Your task to perform on an android device: Find coffee shops on Maps Image 0: 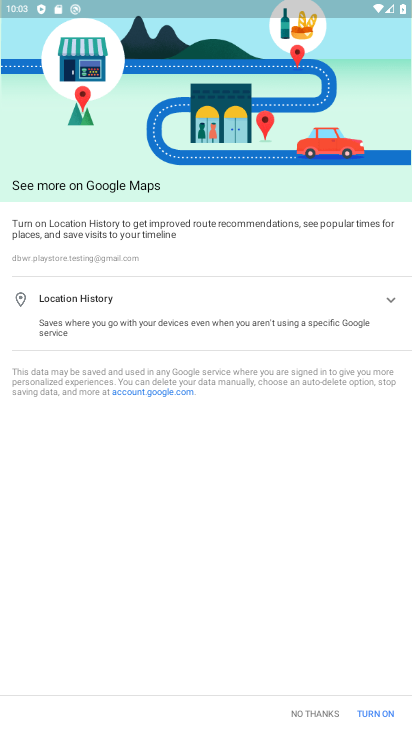
Step 0: press home button
Your task to perform on an android device: Find coffee shops on Maps Image 1: 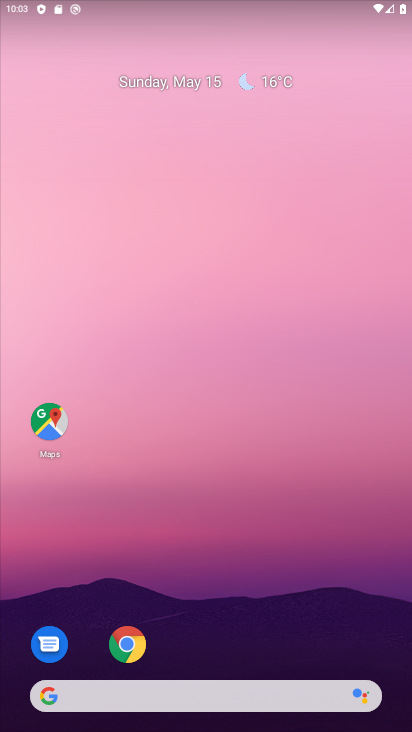
Step 1: click (52, 432)
Your task to perform on an android device: Find coffee shops on Maps Image 2: 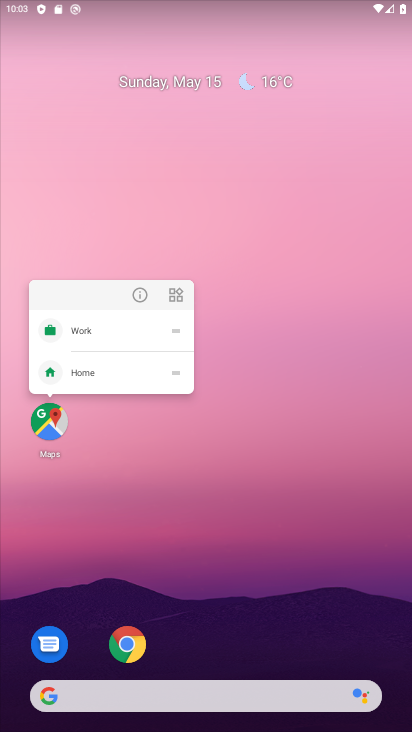
Step 2: click (44, 432)
Your task to perform on an android device: Find coffee shops on Maps Image 3: 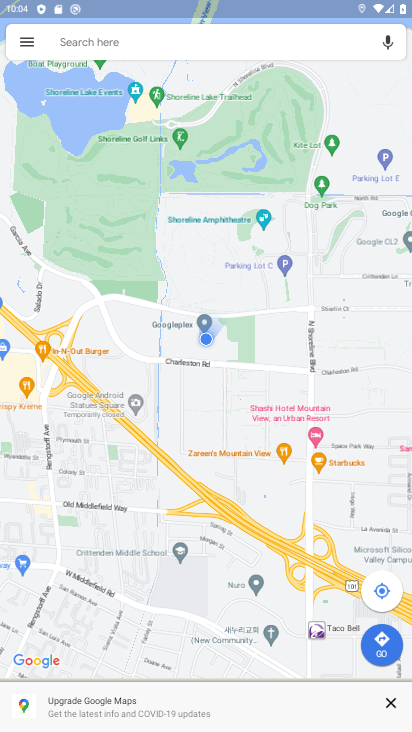
Step 3: click (172, 36)
Your task to perform on an android device: Find coffee shops on Maps Image 4: 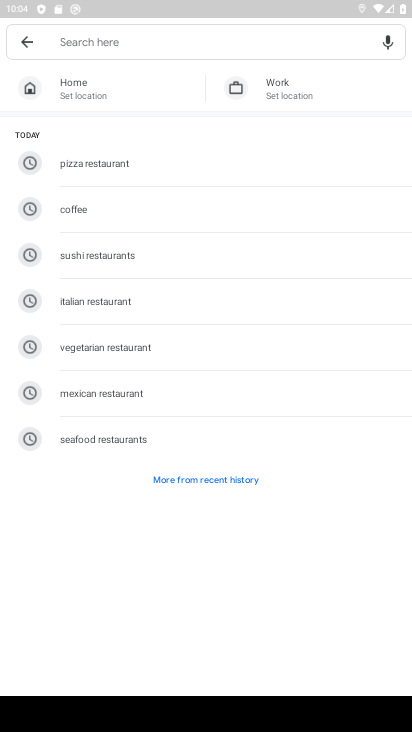
Step 4: click (113, 201)
Your task to perform on an android device: Find coffee shops on Maps Image 5: 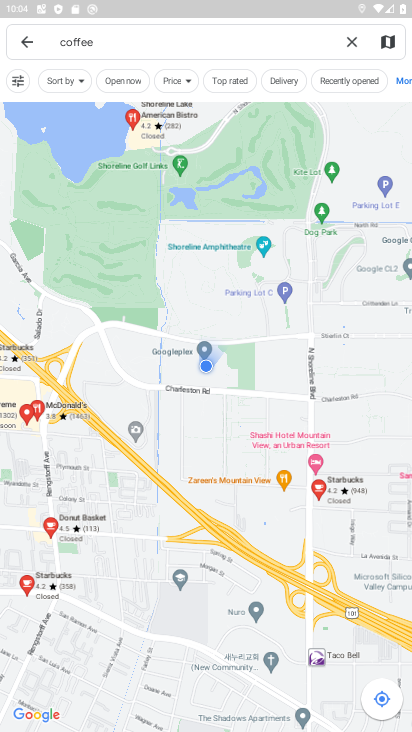
Step 5: task complete